Your task to perform on an android device: toggle priority inbox in the gmail app Image 0: 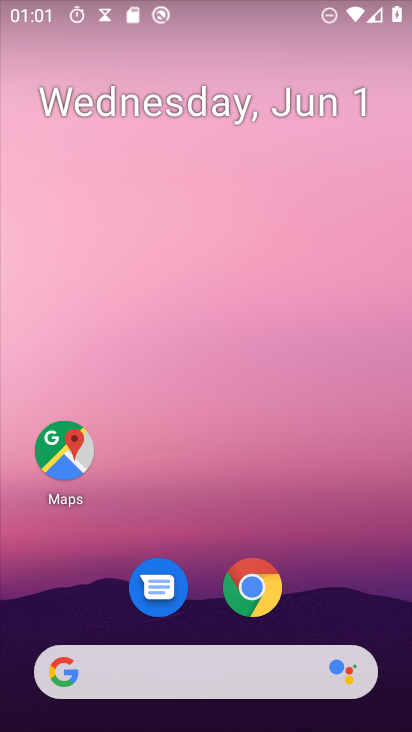
Step 0: drag from (327, 584) to (305, 4)
Your task to perform on an android device: toggle priority inbox in the gmail app Image 1: 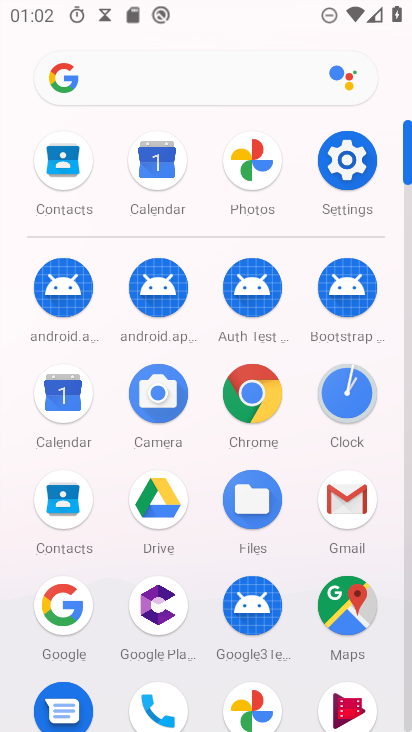
Step 1: click (350, 499)
Your task to perform on an android device: toggle priority inbox in the gmail app Image 2: 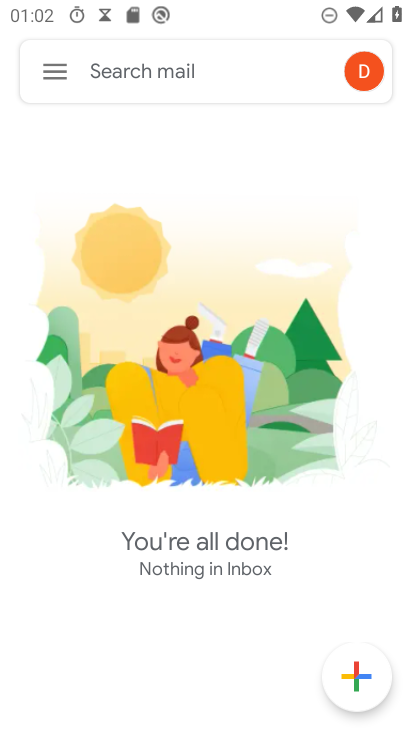
Step 2: click (53, 80)
Your task to perform on an android device: toggle priority inbox in the gmail app Image 3: 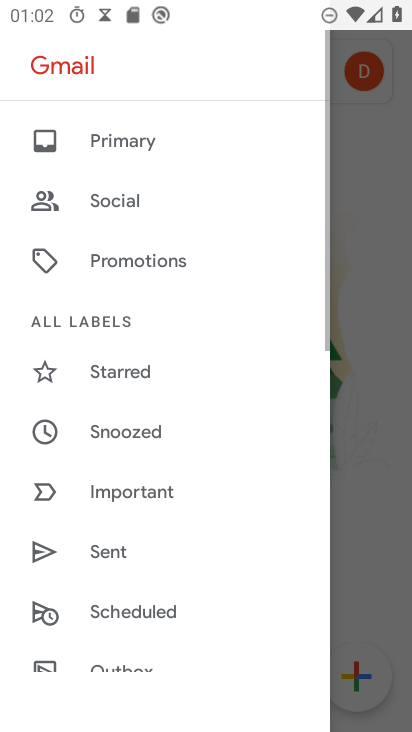
Step 3: drag from (157, 596) to (190, 138)
Your task to perform on an android device: toggle priority inbox in the gmail app Image 4: 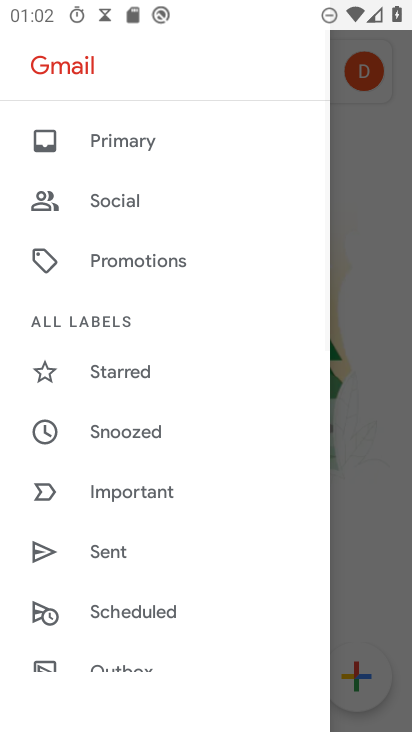
Step 4: drag from (191, 598) to (174, 94)
Your task to perform on an android device: toggle priority inbox in the gmail app Image 5: 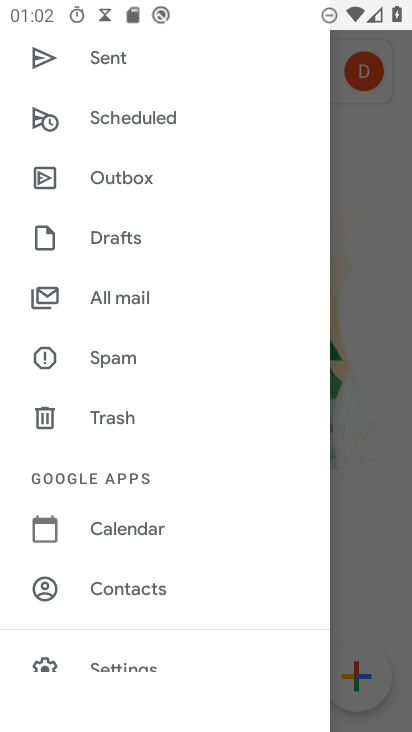
Step 5: drag from (171, 612) to (169, 65)
Your task to perform on an android device: toggle priority inbox in the gmail app Image 6: 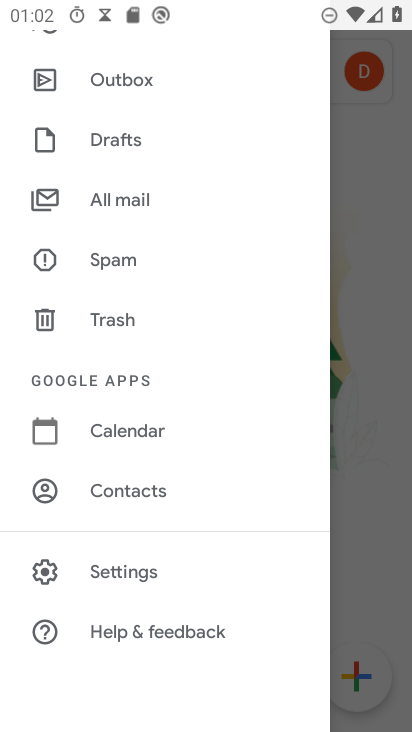
Step 6: click (93, 575)
Your task to perform on an android device: toggle priority inbox in the gmail app Image 7: 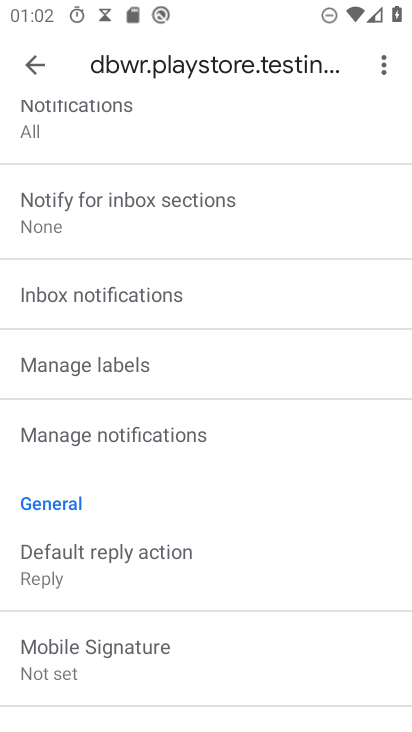
Step 7: drag from (202, 216) to (231, 582)
Your task to perform on an android device: toggle priority inbox in the gmail app Image 8: 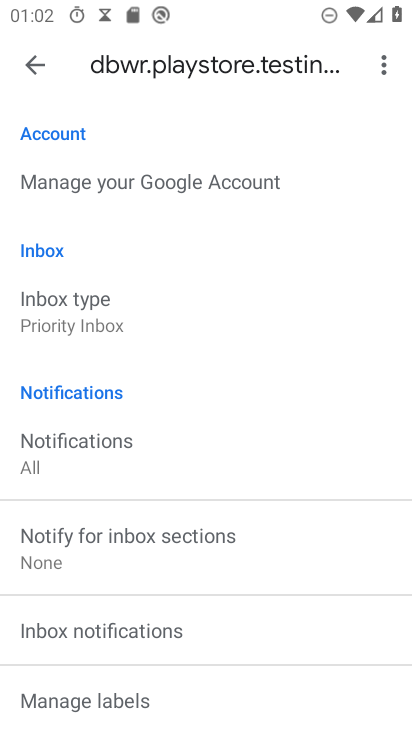
Step 8: click (110, 323)
Your task to perform on an android device: toggle priority inbox in the gmail app Image 9: 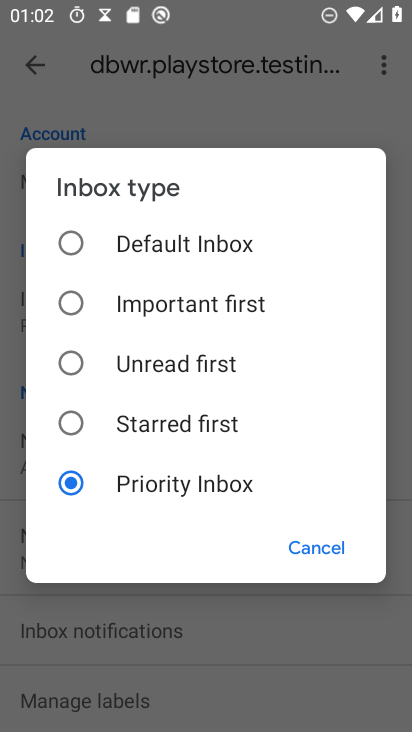
Step 9: click (170, 249)
Your task to perform on an android device: toggle priority inbox in the gmail app Image 10: 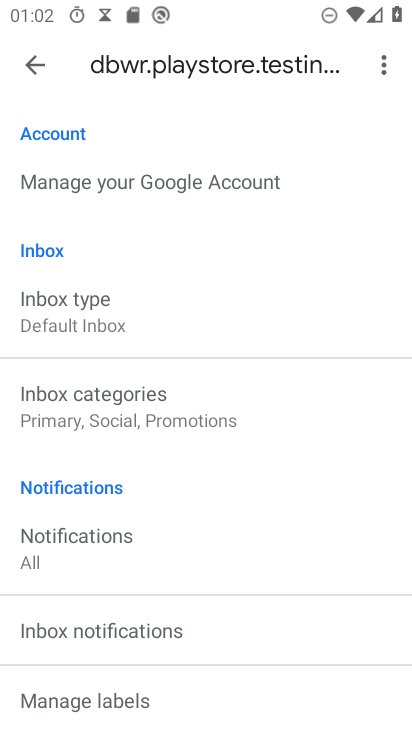
Step 10: task complete